Your task to perform on an android device: check the backup settings in the google photos Image 0: 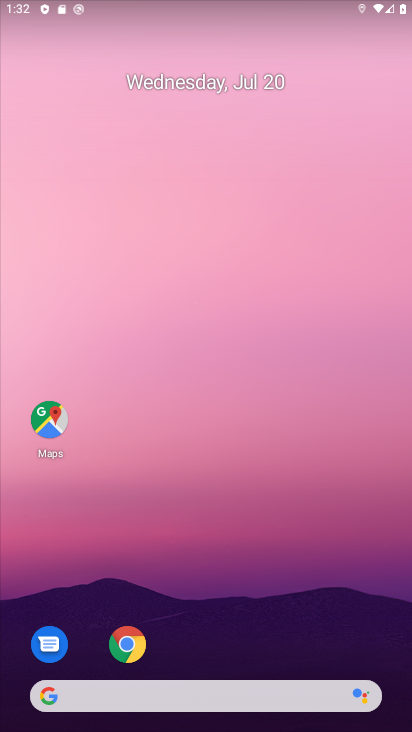
Step 0: drag from (320, 648) to (263, 187)
Your task to perform on an android device: check the backup settings in the google photos Image 1: 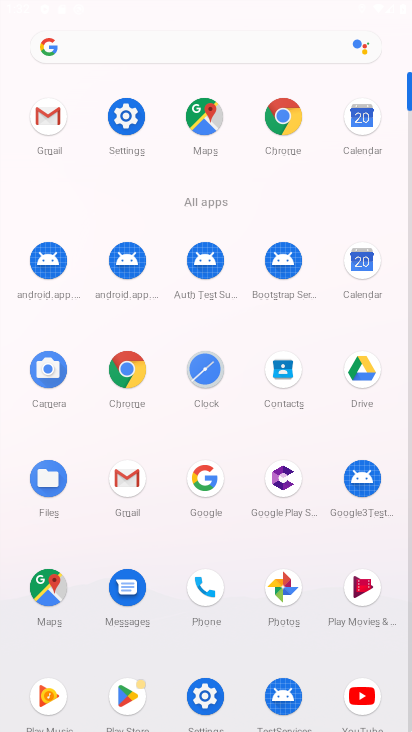
Step 1: click (280, 587)
Your task to perform on an android device: check the backup settings in the google photos Image 2: 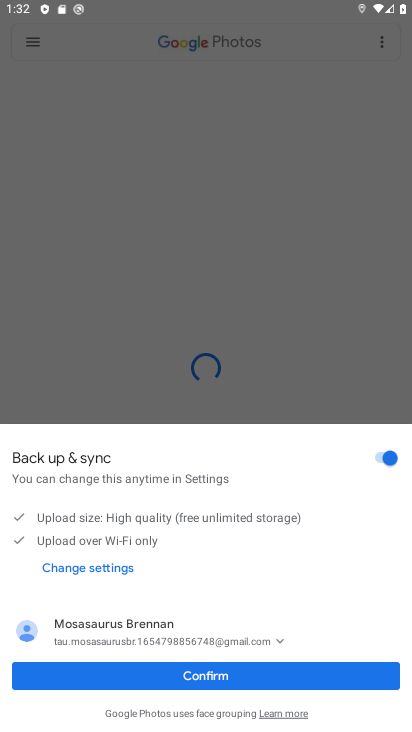
Step 2: click (244, 556)
Your task to perform on an android device: check the backup settings in the google photos Image 3: 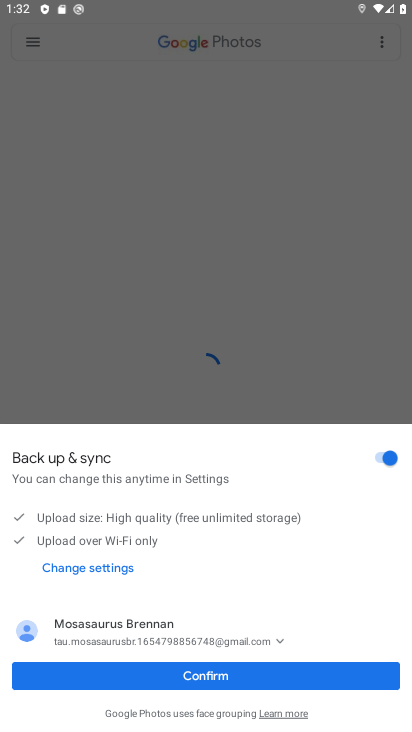
Step 3: click (244, 675)
Your task to perform on an android device: check the backup settings in the google photos Image 4: 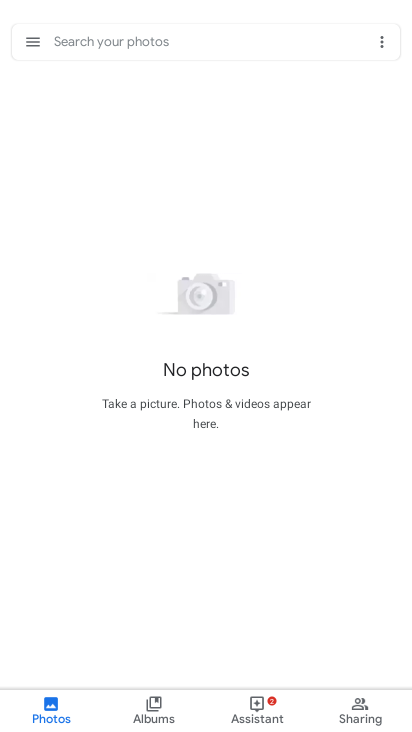
Step 4: click (31, 43)
Your task to perform on an android device: check the backup settings in the google photos Image 5: 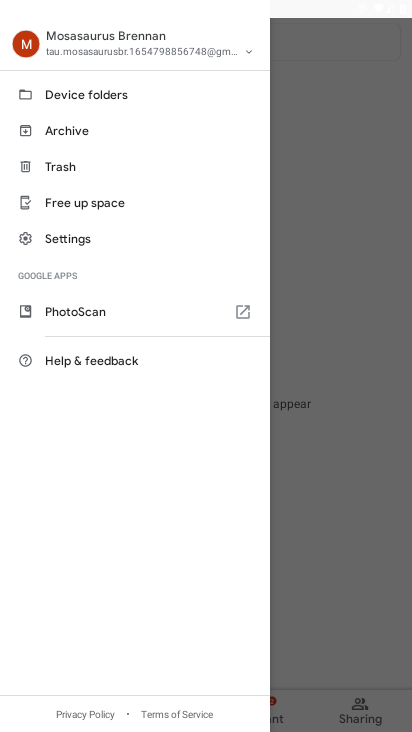
Step 5: click (73, 242)
Your task to perform on an android device: check the backup settings in the google photos Image 6: 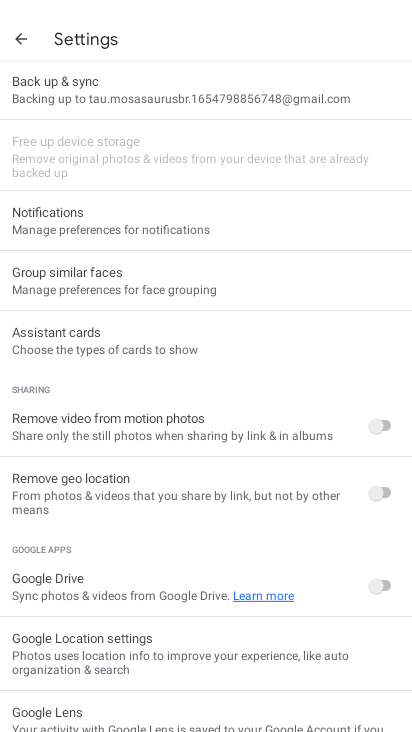
Step 6: click (73, 80)
Your task to perform on an android device: check the backup settings in the google photos Image 7: 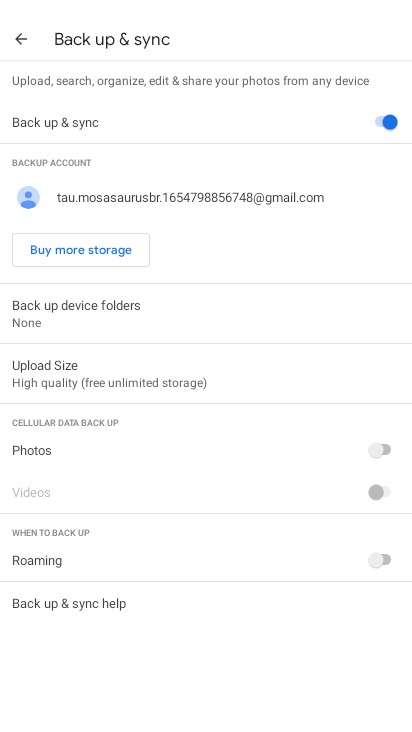
Step 7: task complete